Your task to perform on an android device: Open calendar and show me the second week of next month Image 0: 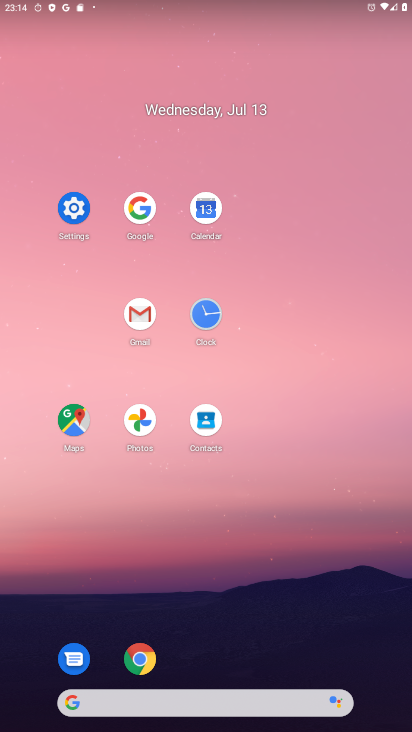
Step 0: click (204, 217)
Your task to perform on an android device: Open calendar and show me the second week of next month Image 1: 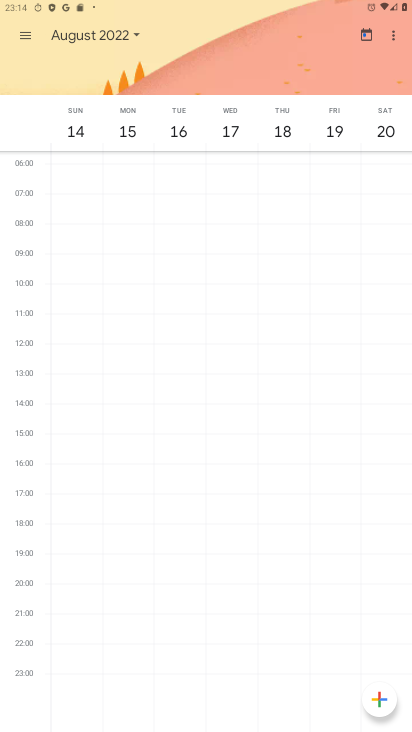
Step 1: task complete